Your task to perform on an android device: Go to privacy settings Image 0: 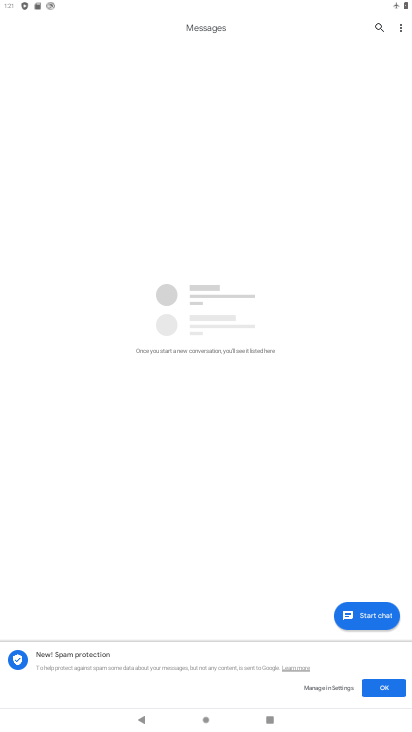
Step 0: press home button
Your task to perform on an android device: Go to privacy settings Image 1: 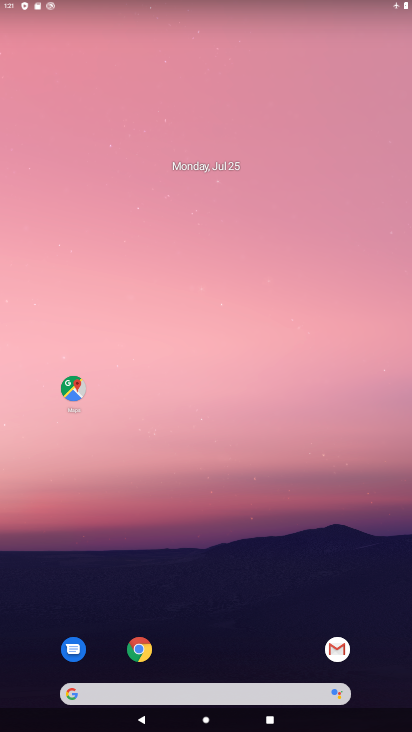
Step 1: drag from (288, 690) to (271, 178)
Your task to perform on an android device: Go to privacy settings Image 2: 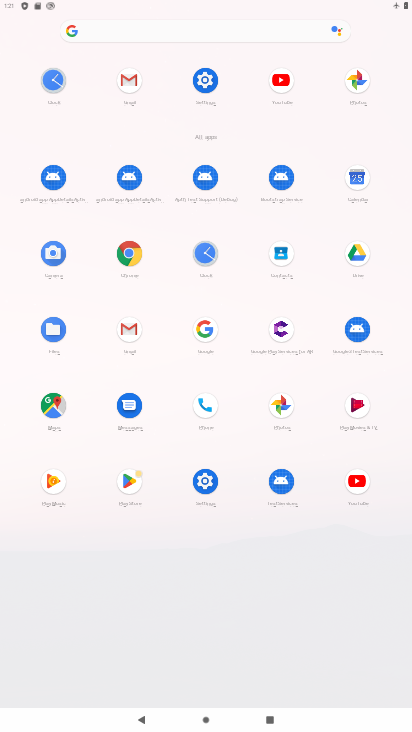
Step 2: click (214, 487)
Your task to perform on an android device: Go to privacy settings Image 3: 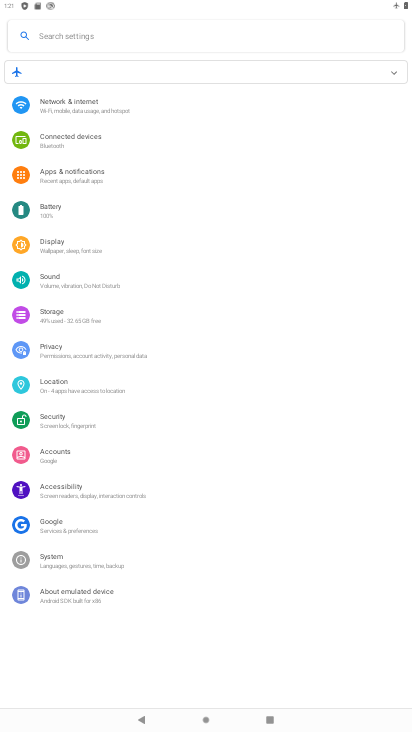
Step 3: click (53, 386)
Your task to perform on an android device: Go to privacy settings Image 4: 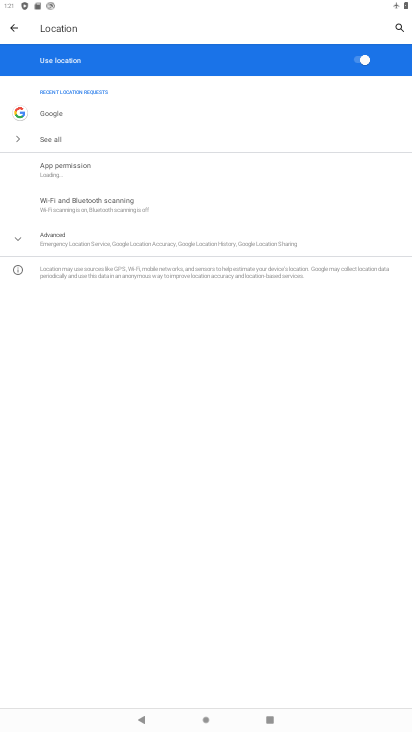
Step 4: click (8, 23)
Your task to perform on an android device: Go to privacy settings Image 5: 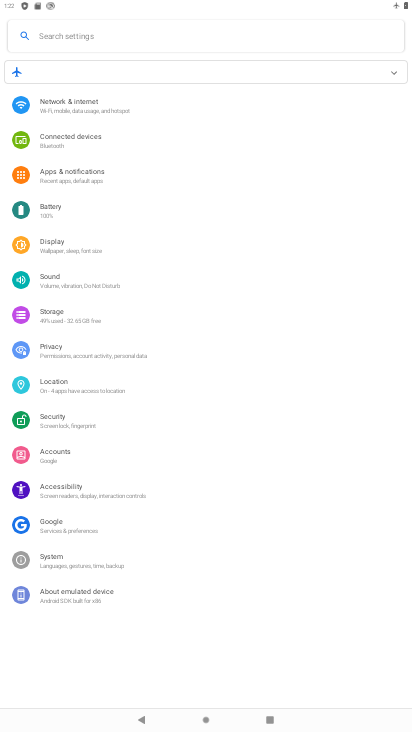
Step 5: click (80, 350)
Your task to perform on an android device: Go to privacy settings Image 6: 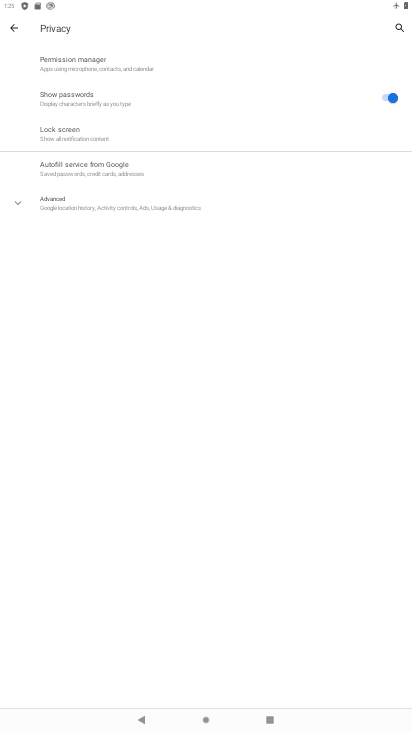
Step 6: task complete